Your task to perform on an android device: Go to settings Image 0: 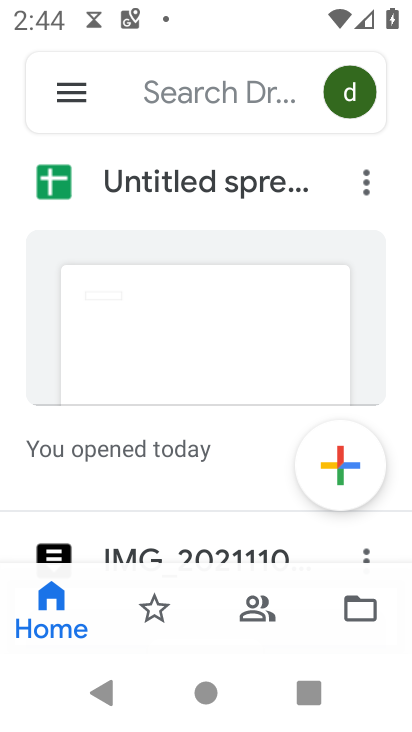
Step 0: press home button
Your task to perform on an android device: Go to settings Image 1: 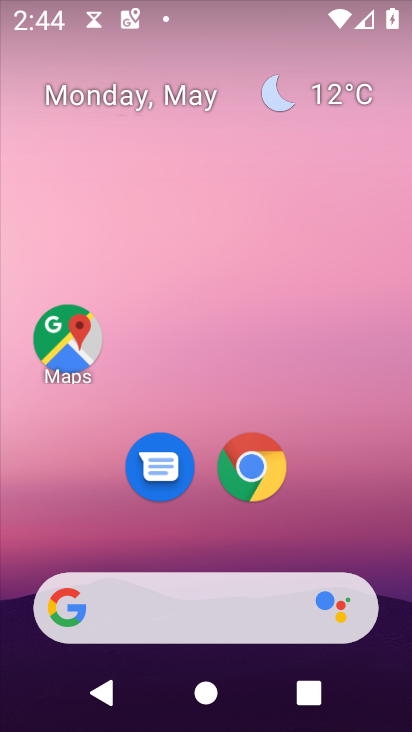
Step 1: drag from (350, 527) to (304, 9)
Your task to perform on an android device: Go to settings Image 2: 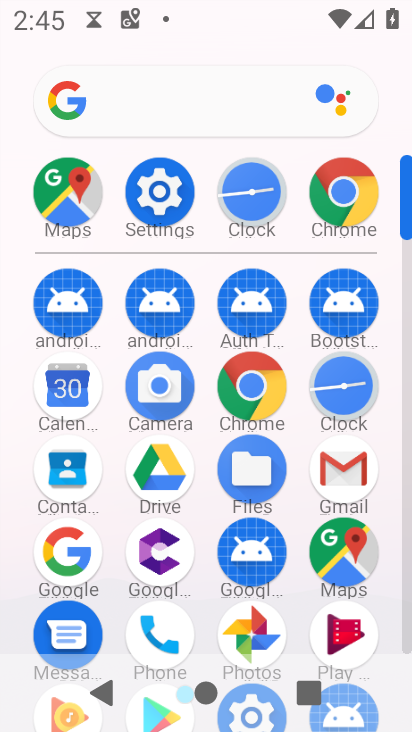
Step 2: click (177, 178)
Your task to perform on an android device: Go to settings Image 3: 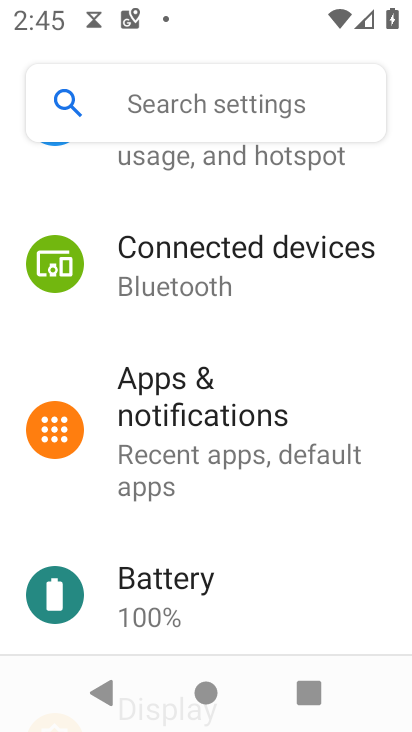
Step 3: task complete